Your task to perform on an android device: Go to sound settings Image 0: 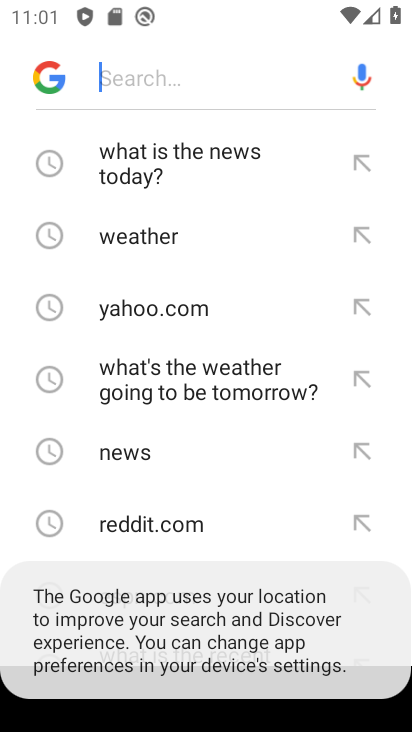
Step 0: press back button
Your task to perform on an android device: Go to sound settings Image 1: 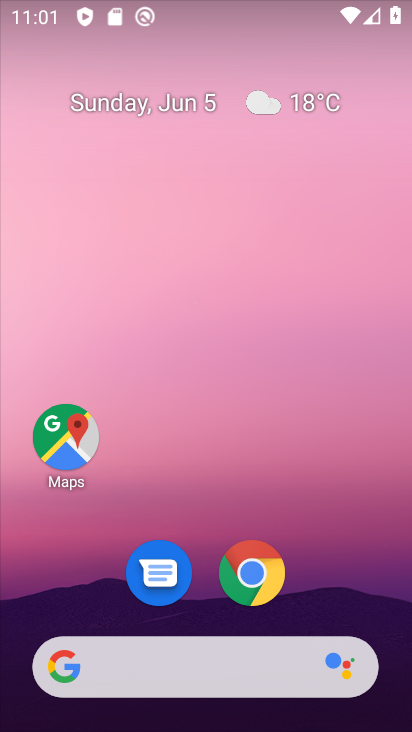
Step 1: drag from (208, 517) to (282, 198)
Your task to perform on an android device: Go to sound settings Image 2: 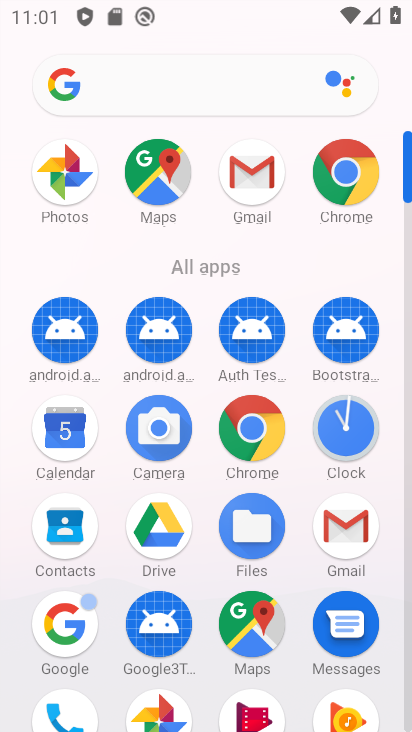
Step 2: drag from (222, 259) to (214, 44)
Your task to perform on an android device: Go to sound settings Image 3: 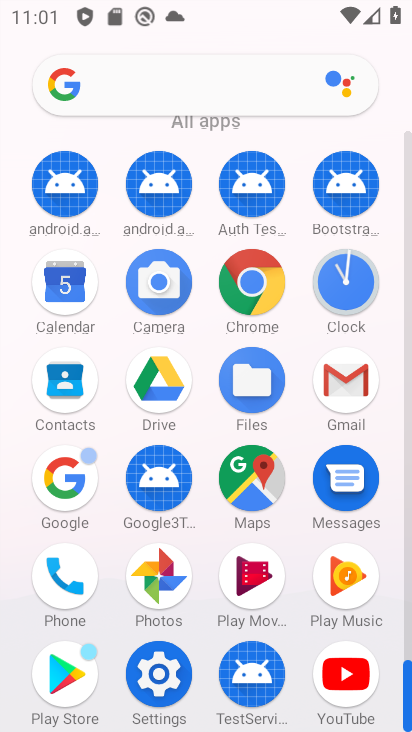
Step 3: click (165, 678)
Your task to perform on an android device: Go to sound settings Image 4: 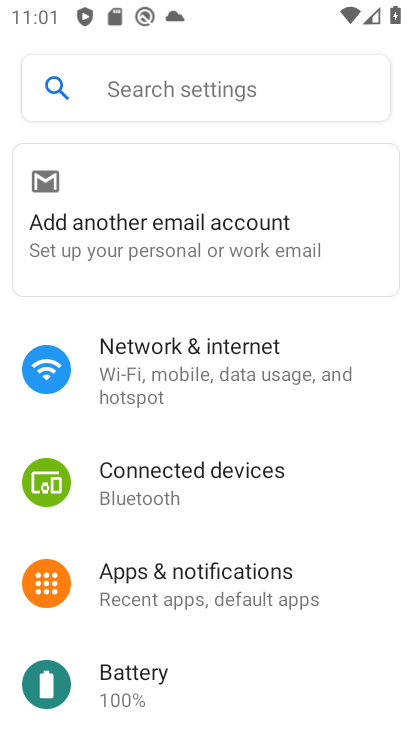
Step 4: drag from (222, 558) to (255, 173)
Your task to perform on an android device: Go to sound settings Image 5: 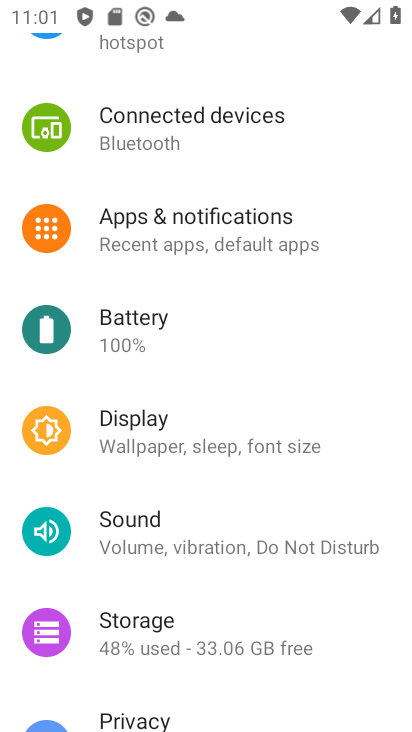
Step 5: click (171, 557)
Your task to perform on an android device: Go to sound settings Image 6: 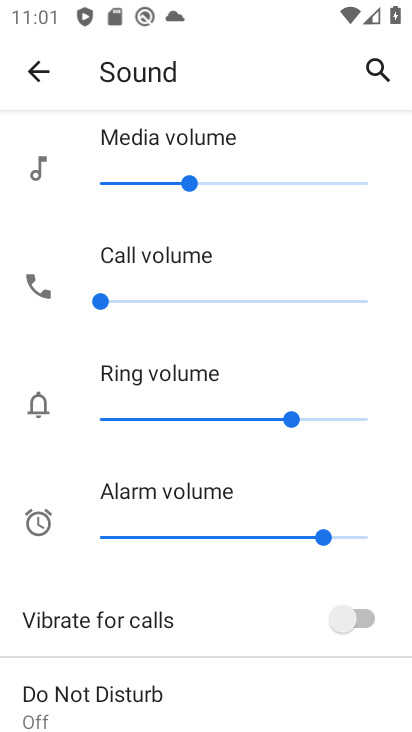
Step 6: task complete